Your task to perform on an android device: turn smart compose on in the gmail app Image 0: 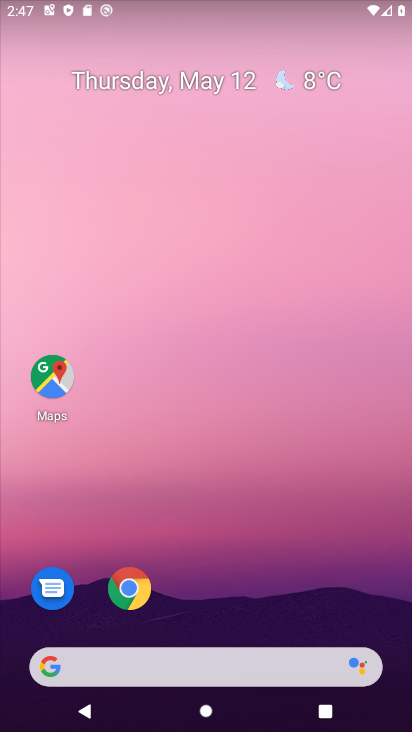
Step 0: drag from (266, 623) to (240, 176)
Your task to perform on an android device: turn smart compose on in the gmail app Image 1: 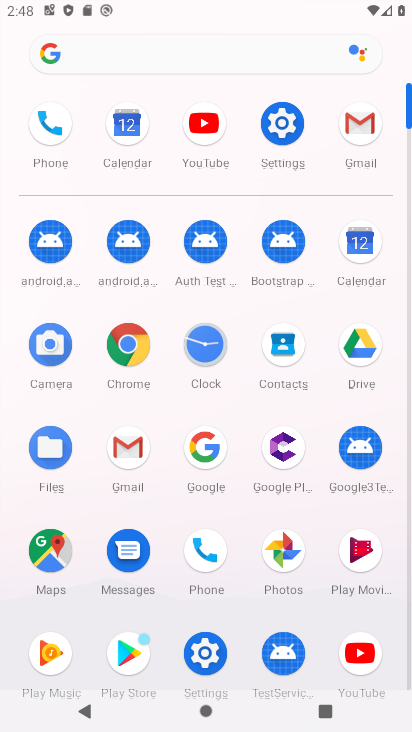
Step 1: click (359, 149)
Your task to perform on an android device: turn smart compose on in the gmail app Image 2: 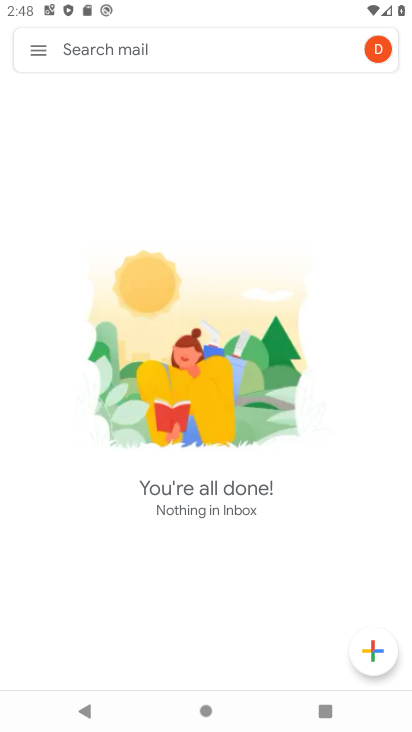
Step 2: click (35, 49)
Your task to perform on an android device: turn smart compose on in the gmail app Image 3: 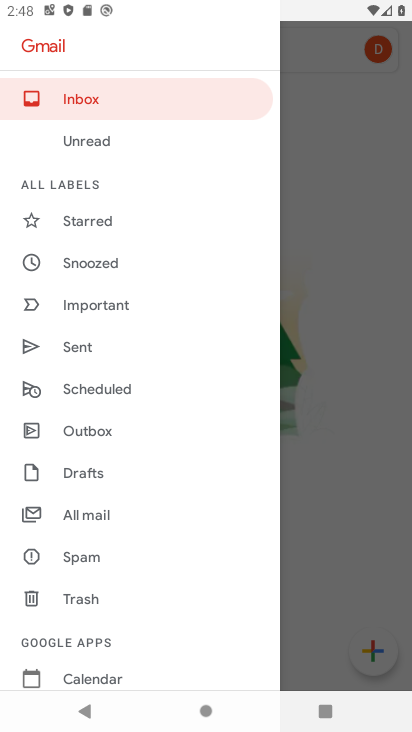
Step 3: drag from (119, 614) to (133, 367)
Your task to perform on an android device: turn smart compose on in the gmail app Image 4: 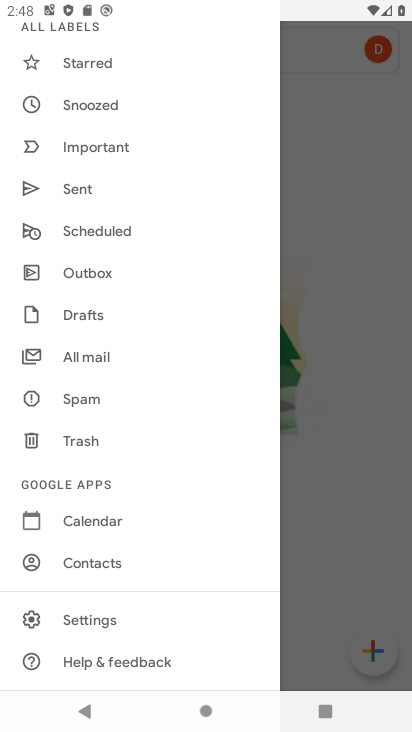
Step 4: click (108, 624)
Your task to perform on an android device: turn smart compose on in the gmail app Image 5: 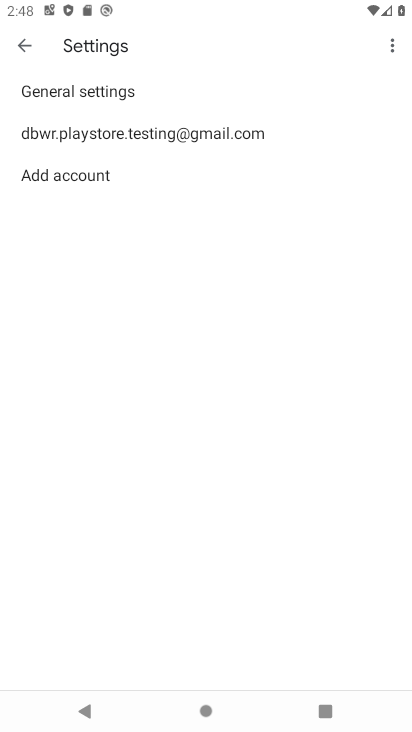
Step 5: click (145, 149)
Your task to perform on an android device: turn smart compose on in the gmail app Image 6: 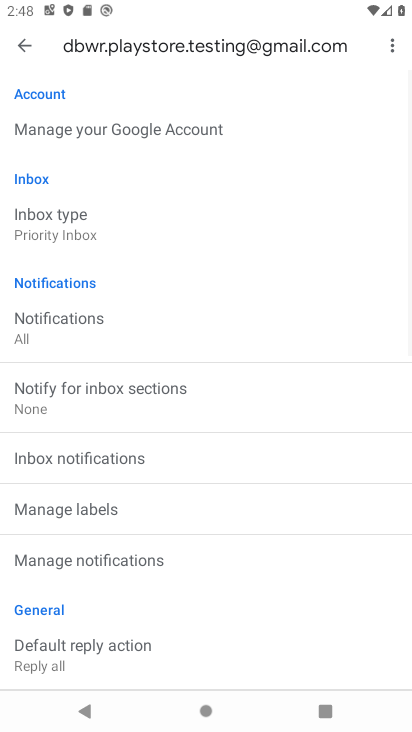
Step 6: task complete